Your task to perform on an android device: Open Maps and search for coffee Image 0: 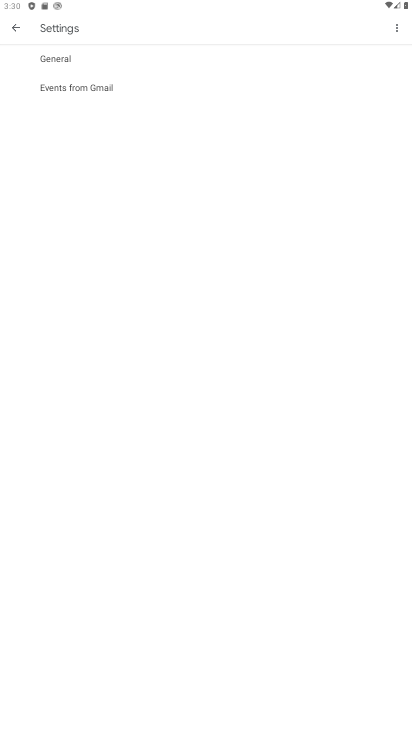
Step 0: press home button
Your task to perform on an android device: Open Maps and search for coffee Image 1: 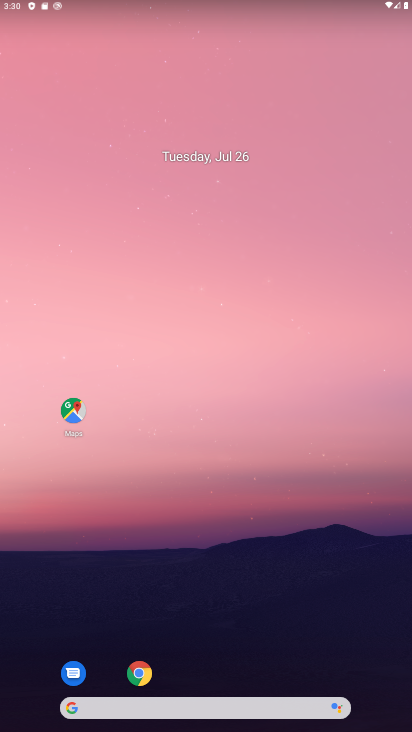
Step 1: click (70, 409)
Your task to perform on an android device: Open Maps and search for coffee Image 2: 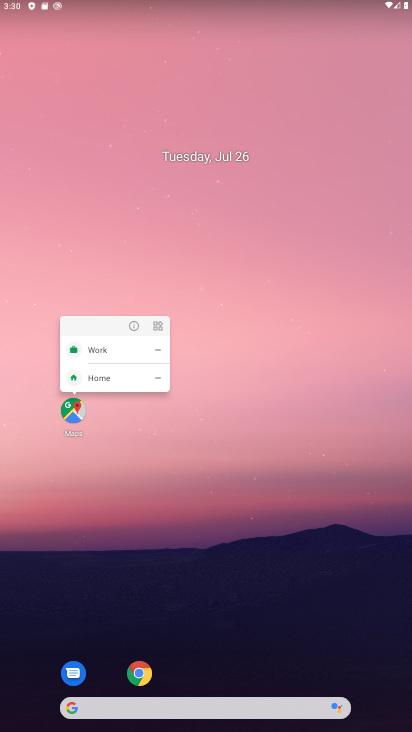
Step 2: click (70, 409)
Your task to perform on an android device: Open Maps and search for coffee Image 3: 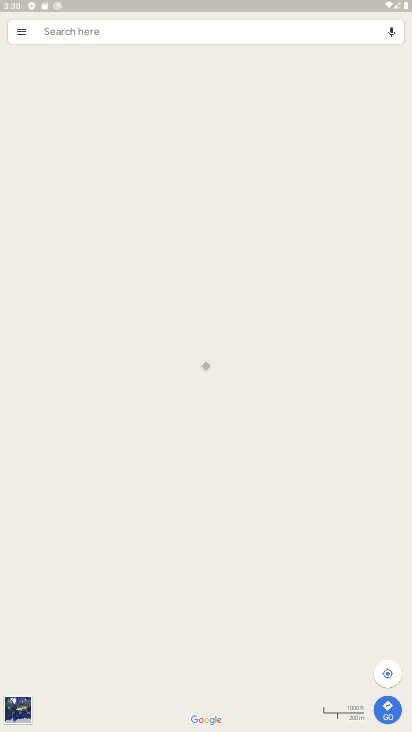
Step 3: click (71, 32)
Your task to perform on an android device: Open Maps and search for coffee Image 4: 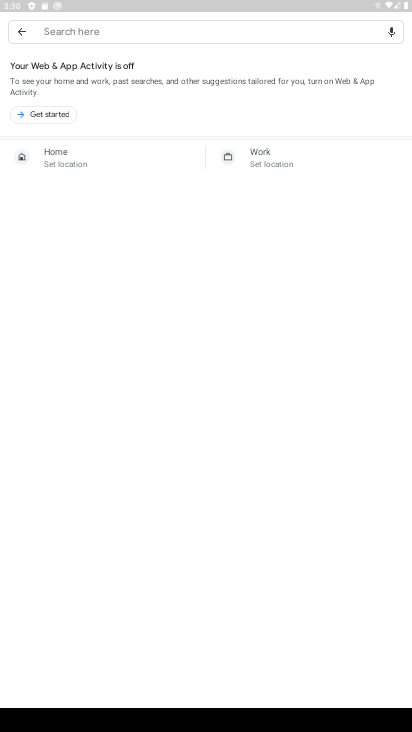
Step 4: type "coffee"
Your task to perform on an android device: Open Maps and search for coffee Image 5: 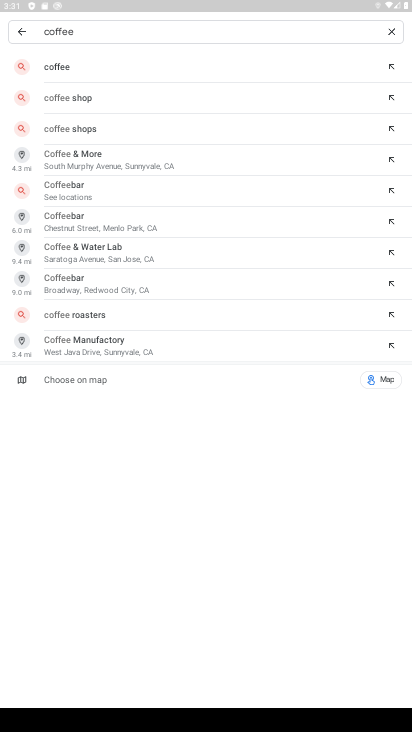
Step 5: click (61, 72)
Your task to perform on an android device: Open Maps and search for coffee Image 6: 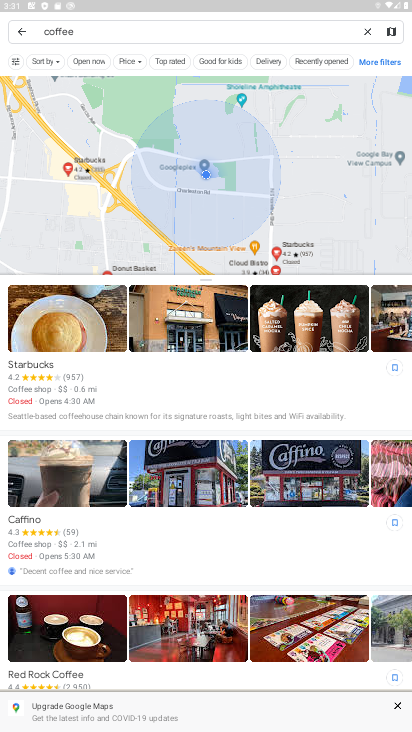
Step 6: task complete